Your task to perform on an android device: Open the Play Movies app and select the watchlist tab. Image 0: 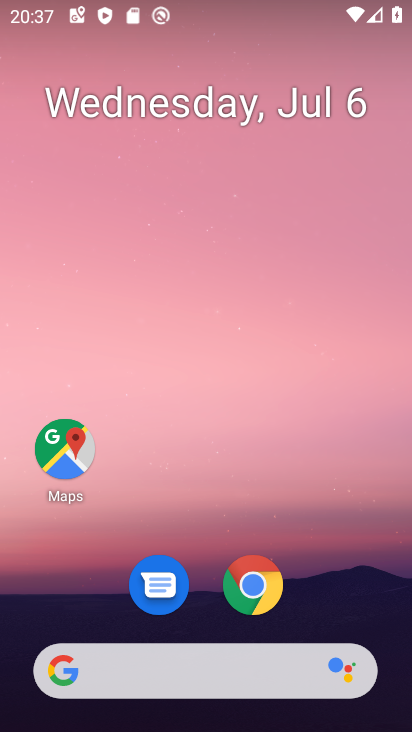
Step 0: drag from (235, 489) to (216, 94)
Your task to perform on an android device: Open the Play Movies app and select the watchlist tab. Image 1: 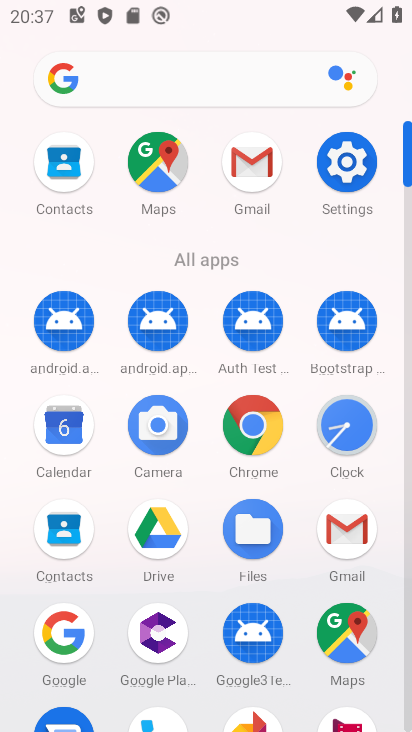
Step 1: drag from (210, 566) to (176, 370)
Your task to perform on an android device: Open the Play Movies app and select the watchlist tab. Image 2: 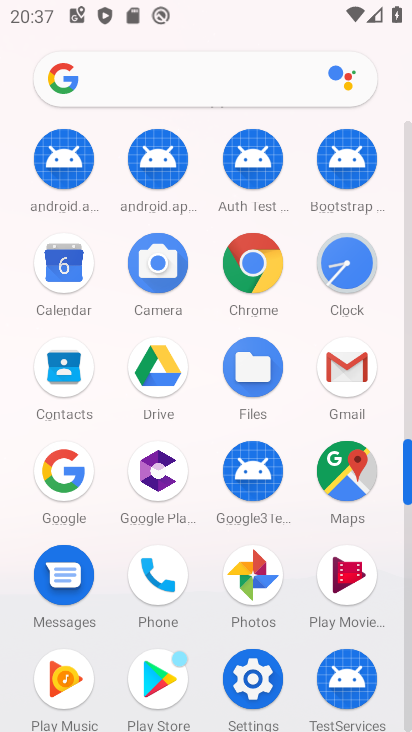
Step 2: click (343, 581)
Your task to perform on an android device: Open the Play Movies app and select the watchlist tab. Image 3: 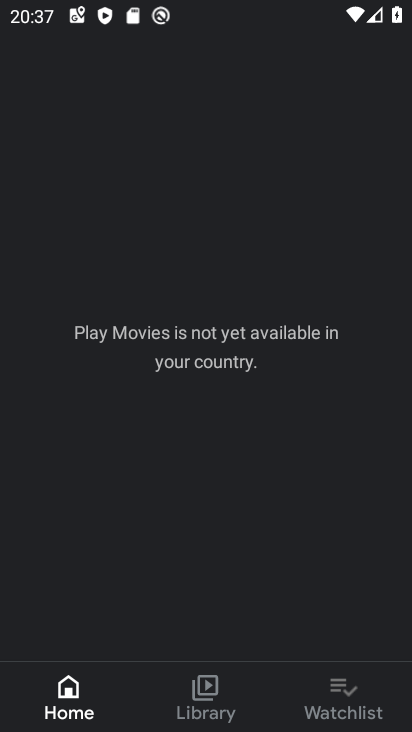
Step 3: click (337, 705)
Your task to perform on an android device: Open the Play Movies app and select the watchlist tab. Image 4: 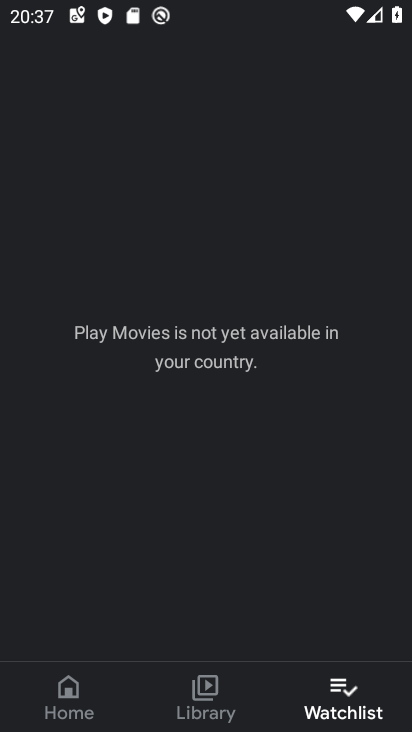
Step 4: task complete